Your task to perform on an android device: make emails show in primary in the gmail app Image 0: 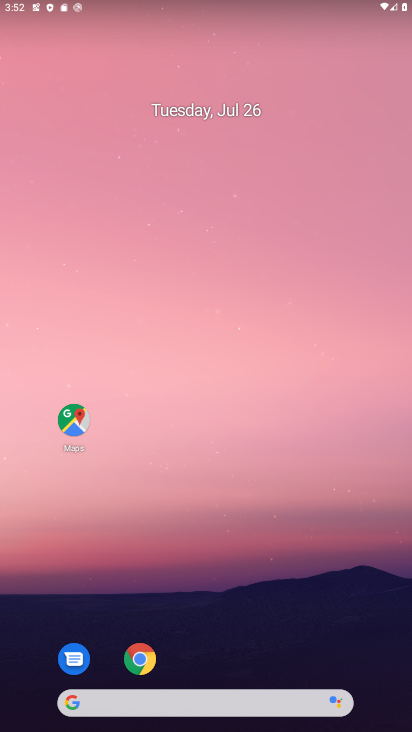
Step 0: drag from (267, 599) to (361, 4)
Your task to perform on an android device: make emails show in primary in the gmail app Image 1: 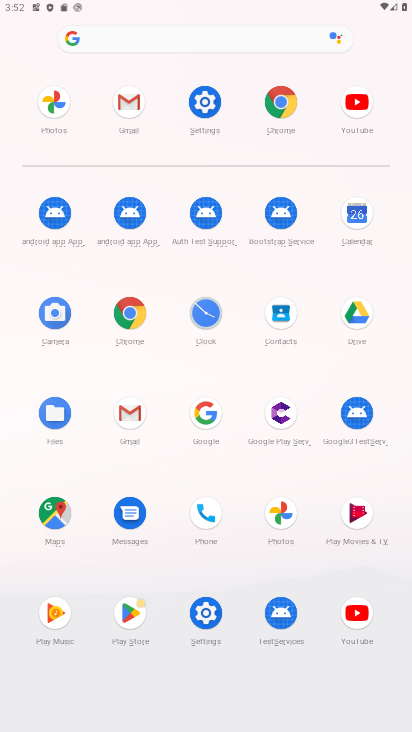
Step 1: click (129, 412)
Your task to perform on an android device: make emails show in primary in the gmail app Image 2: 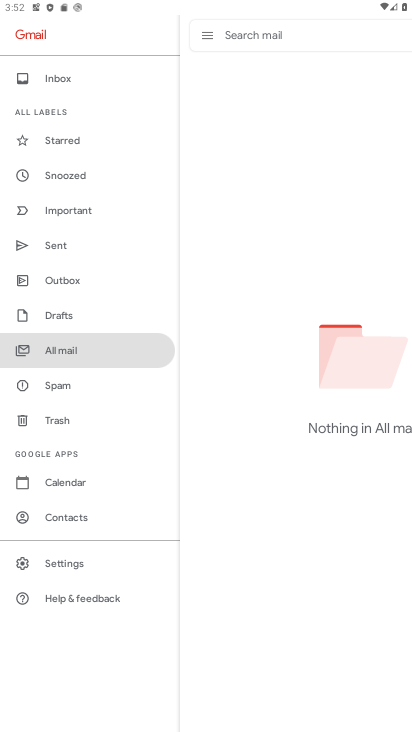
Step 2: click (80, 565)
Your task to perform on an android device: make emails show in primary in the gmail app Image 3: 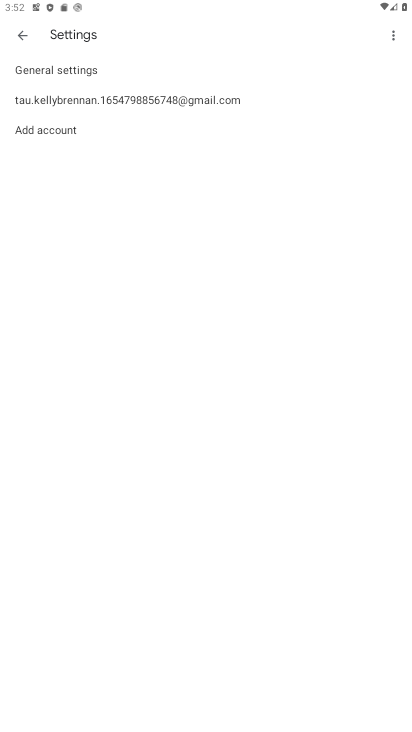
Step 3: click (158, 90)
Your task to perform on an android device: make emails show in primary in the gmail app Image 4: 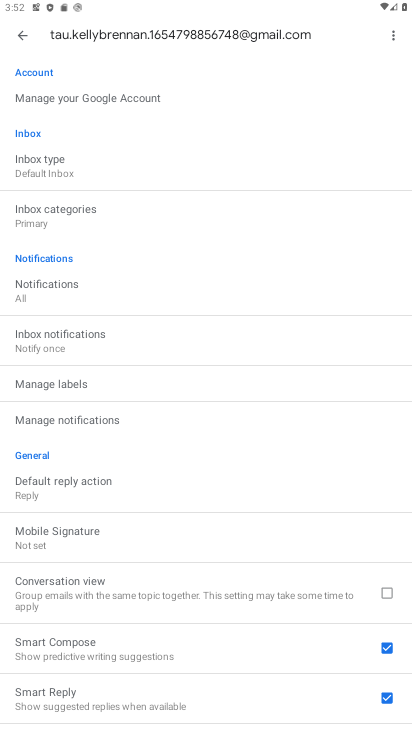
Step 4: click (108, 172)
Your task to perform on an android device: make emails show in primary in the gmail app Image 5: 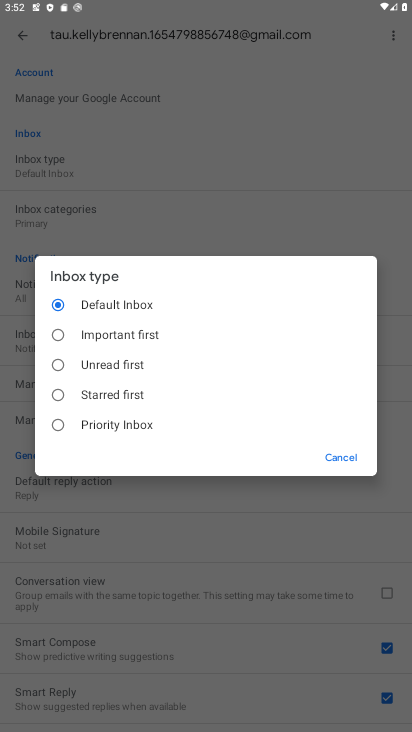
Step 5: click (82, 307)
Your task to perform on an android device: make emails show in primary in the gmail app Image 6: 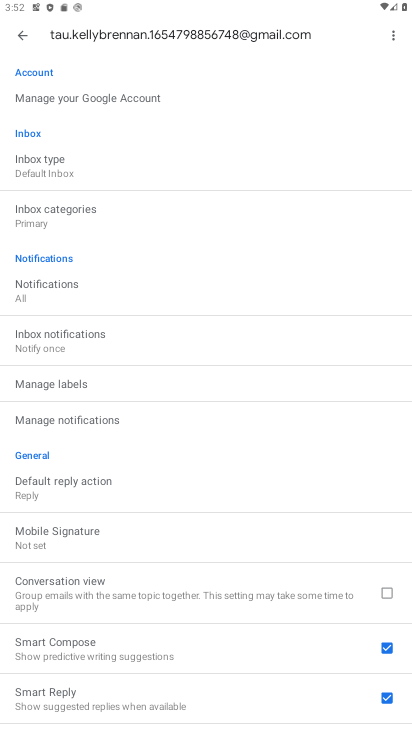
Step 6: task complete